Your task to perform on an android device: allow notifications from all sites in the chrome app Image 0: 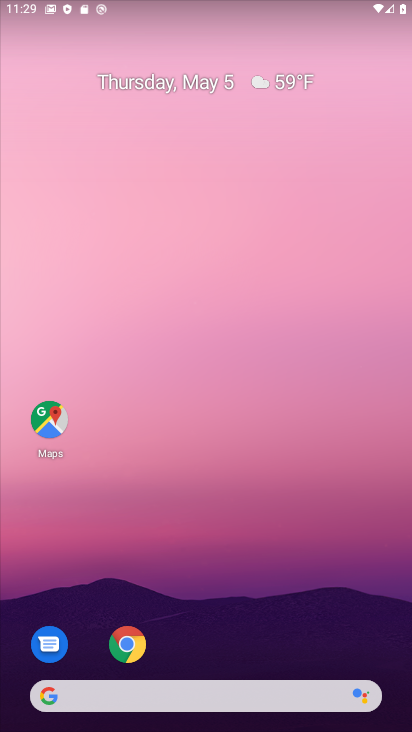
Step 0: click (131, 663)
Your task to perform on an android device: allow notifications from all sites in the chrome app Image 1: 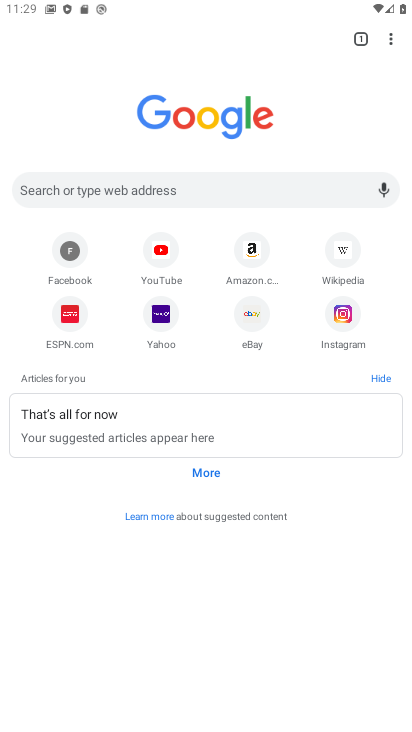
Step 1: click (389, 37)
Your task to perform on an android device: allow notifications from all sites in the chrome app Image 2: 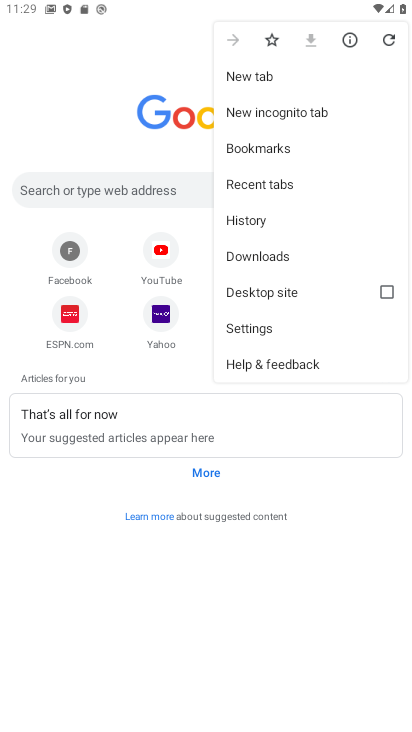
Step 2: click (265, 322)
Your task to perform on an android device: allow notifications from all sites in the chrome app Image 3: 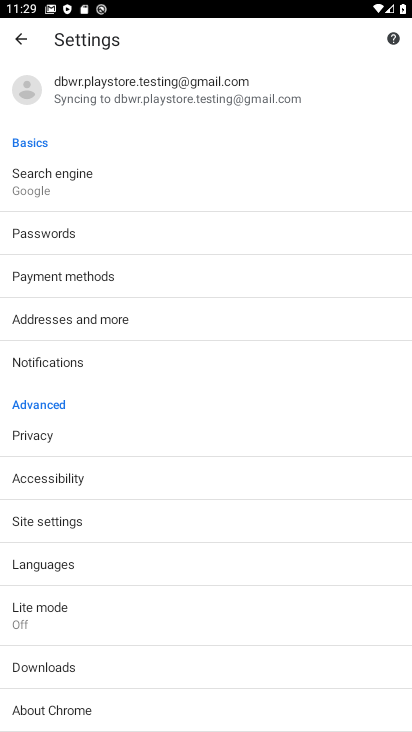
Step 3: drag from (96, 659) to (206, 228)
Your task to perform on an android device: allow notifications from all sites in the chrome app Image 4: 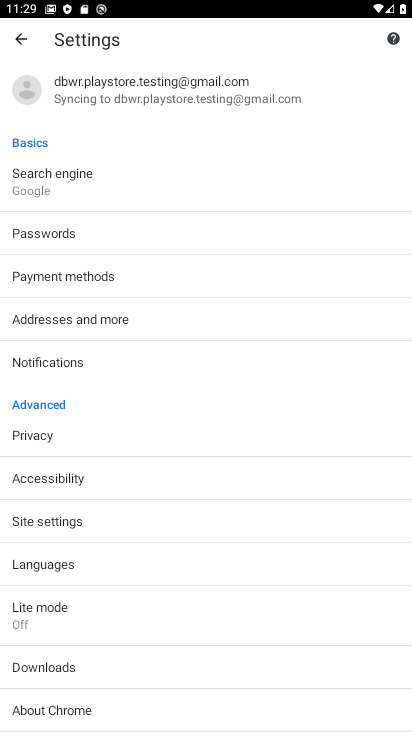
Step 4: click (74, 361)
Your task to perform on an android device: allow notifications from all sites in the chrome app Image 5: 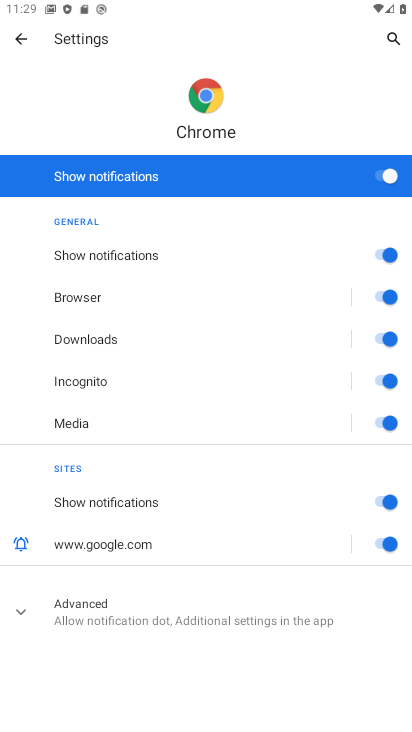
Step 5: task complete